Your task to perform on an android device: set default search engine in the chrome app Image 0: 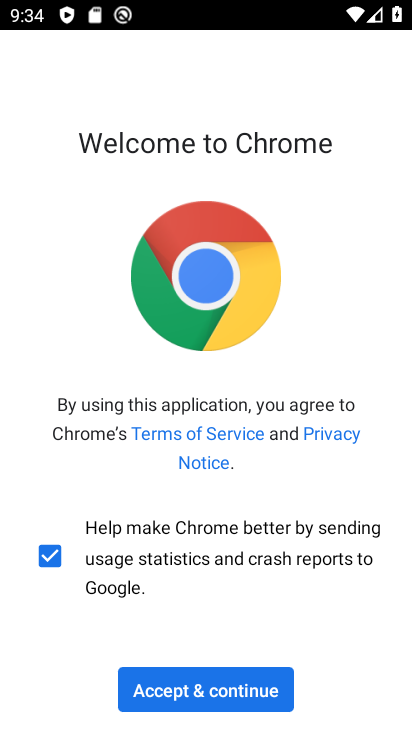
Step 0: press home button
Your task to perform on an android device: set default search engine in the chrome app Image 1: 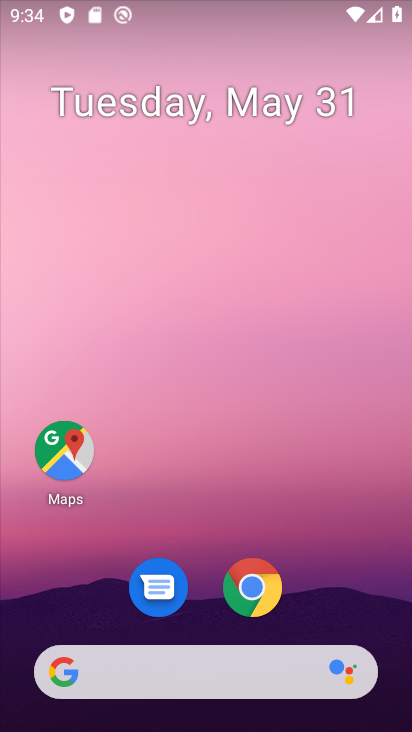
Step 1: drag from (378, 602) to (383, 222)
Your task to perform on an android device: set default search engine in the chrome app Image 2: 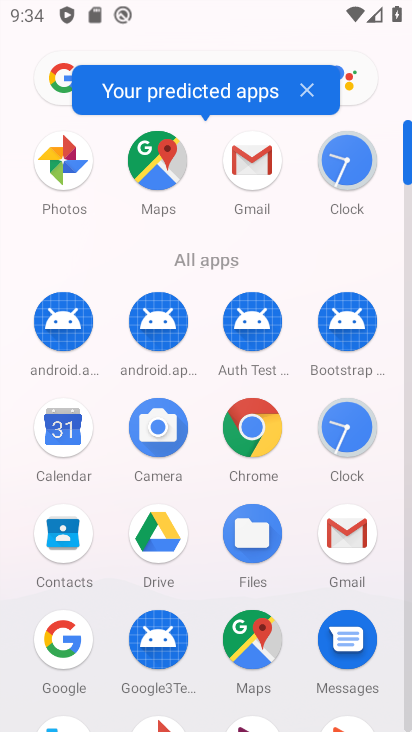
Step 2: click (254, 425)
Your task to perform on an android device: set default search engine in the chrome app Image 3: 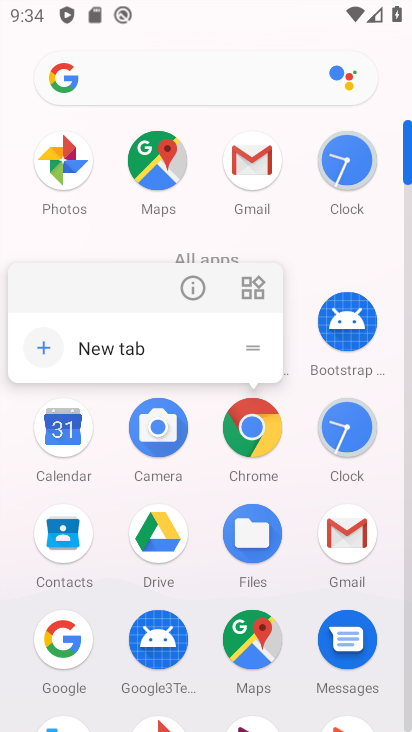
Step 3: click (254, 425)
Your task to perform on an android device: set default search engine in the chrome app Image 4: 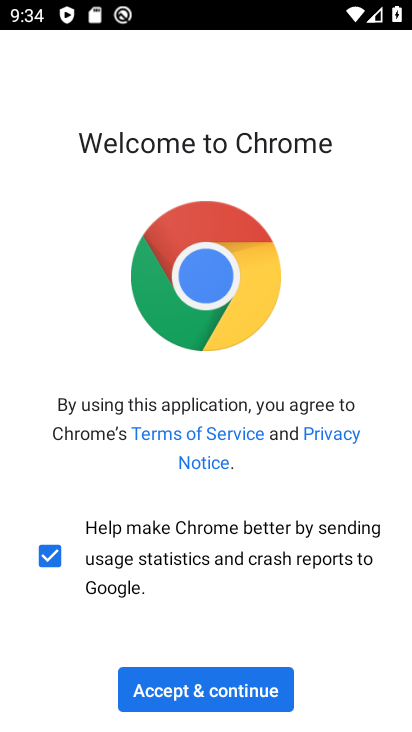
Step 4: click (209, 693)
Your task to perform on an android device: set default search engine in the chrome app Image 5: 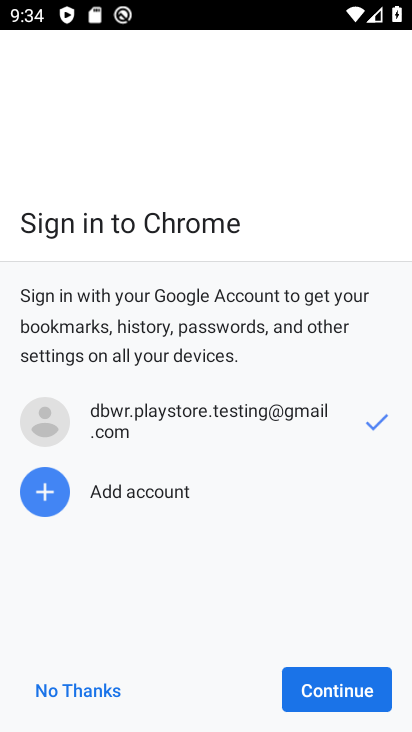
Step 5: click (295, 694)
Your task to perform on an android device: set default search engine in the chrome app Image 6: 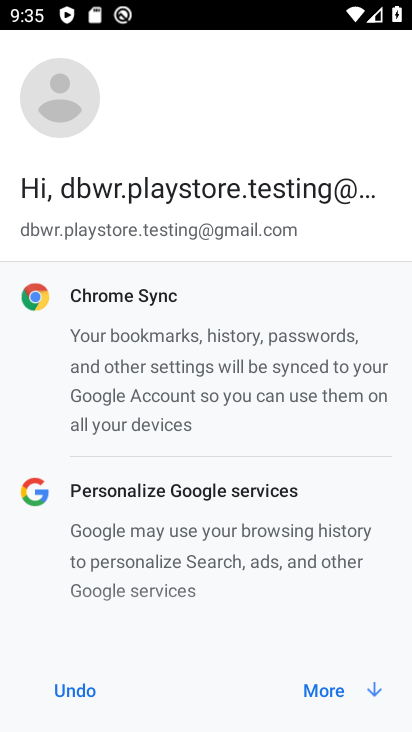
Step 6: click (312, 694)
Your task to perform on an android device: set default search engine in the chrome app Image 7: 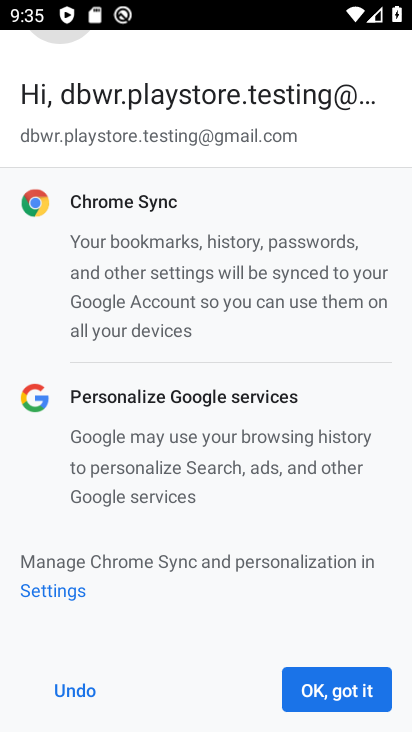
Step 7: click (333, 702)
Your task to perform on an android device: set default search engine in the chrome app Image 8: 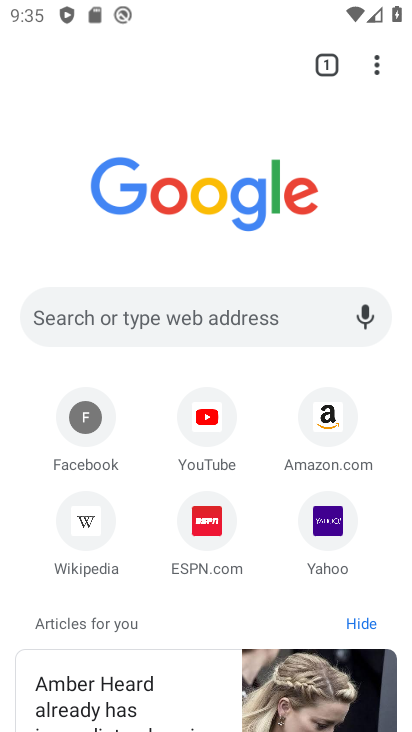
Step 8: click (379, 73)
Your task to perform on an android device: set default search engine in the chrome app Image 9: 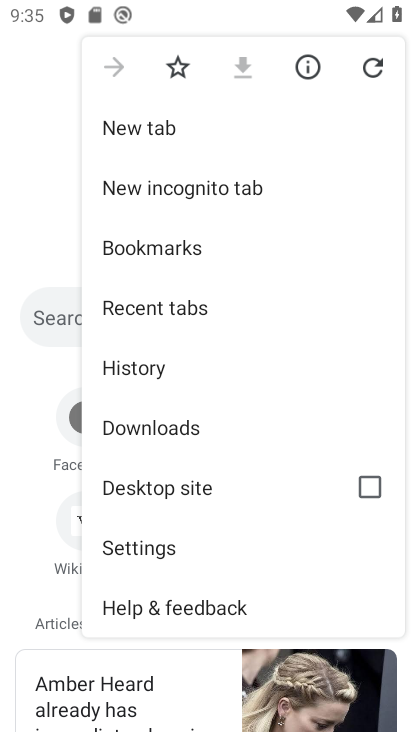
Step 9: click (219, 541)
Your task to perform on an android device: set default search engine in the chrome app Image 10: 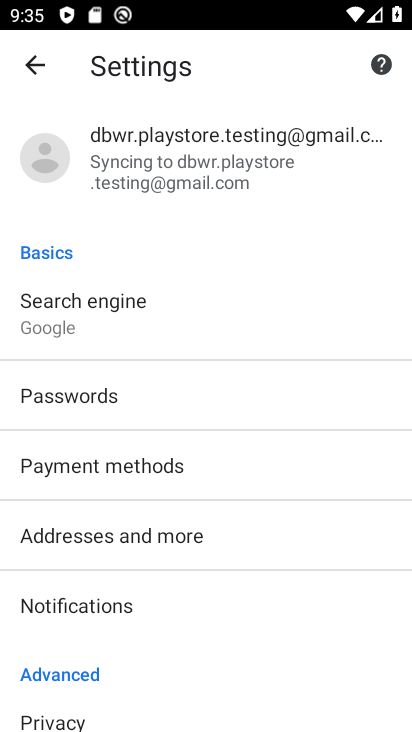
Step 10: drag from (341, 518) to (362, 407)
Your task to perform on an android device: set default search engine in the chrome app Image 11: 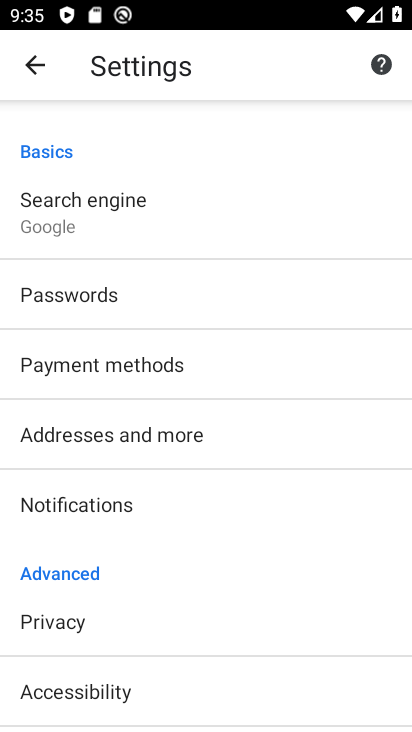
Step 11: drag from (364, 559) to (359, 423)
Your task to perform on an android device: set default search engine in the chrome app Image 12: 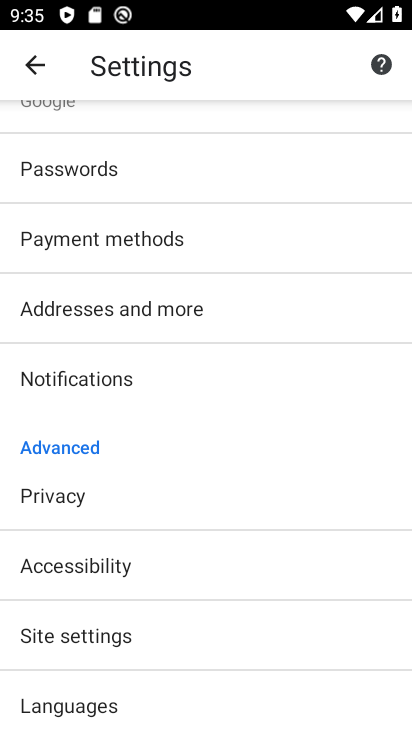
Step 12: drag from (319, 577) to (324, 416)
Your task to perform on an android device: set default search engine in the chrome app Image 13: 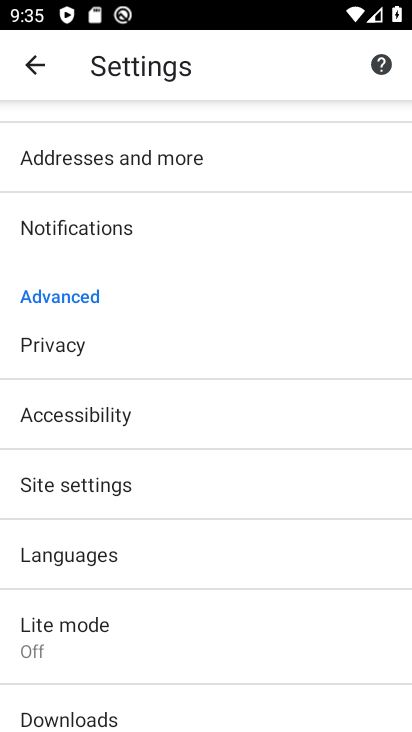
Step 13: drag from (315, 612) to (334, 427)
Your task to perform on an android device: set default search engine in the chrome app Image 14: 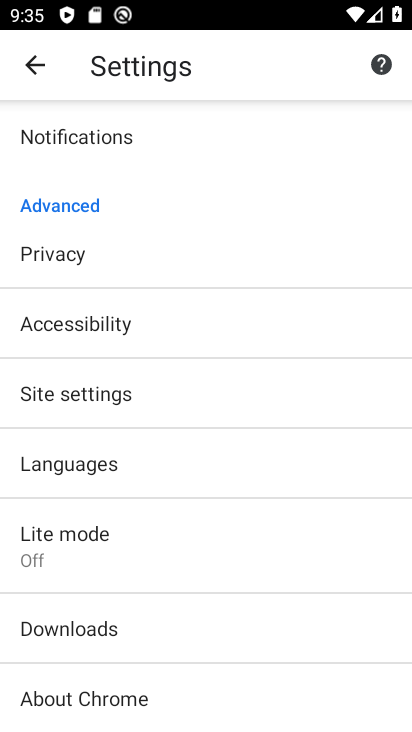
Step 14: drag from (329, 307) to (327, 417)
Your task to perform on an android device: set default search engine in the chrome app Image 15: 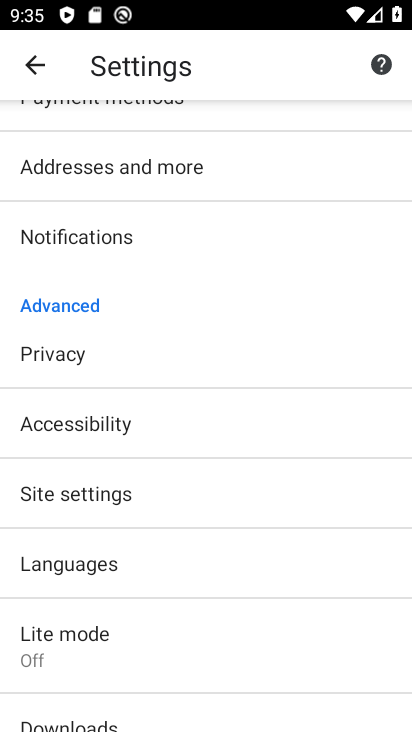
Step 15: drag from (304, 262) to (300, 350)
Your task to perform on an android device: set default search engine in the chrome app Image 16: 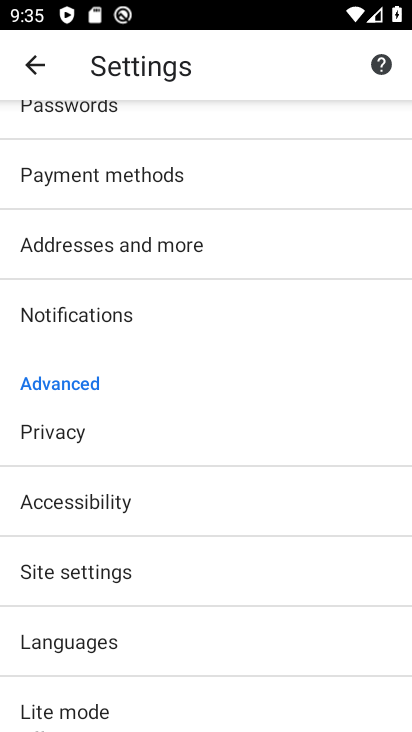
Step 16: drag from (308, 240) to (310, 359)
Your task to perform on an android device: set default search engine in the chrome app Image 17: 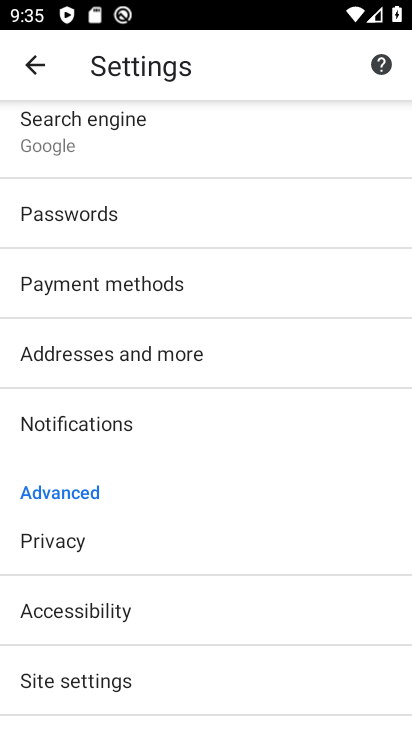
Step 17: drag from (296, 213) to (298, 359)
Your task to perform on an android device: set default search engine in the chrome app Image 18: 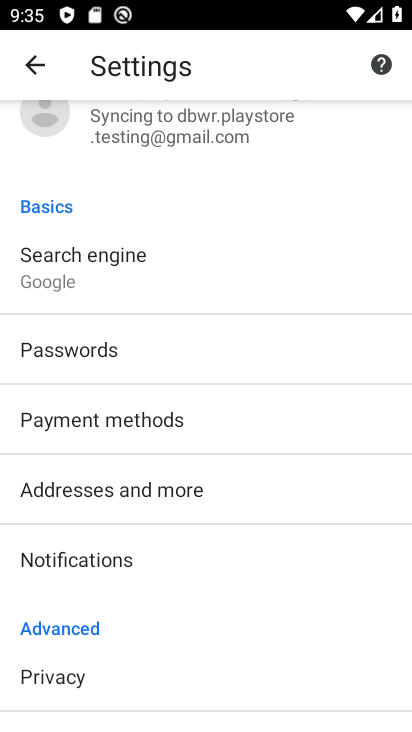
Step 18: drag from (282, 194) to (282, 404)
Your task to perform on an android device: set default search engine in the chrome app Image 19: 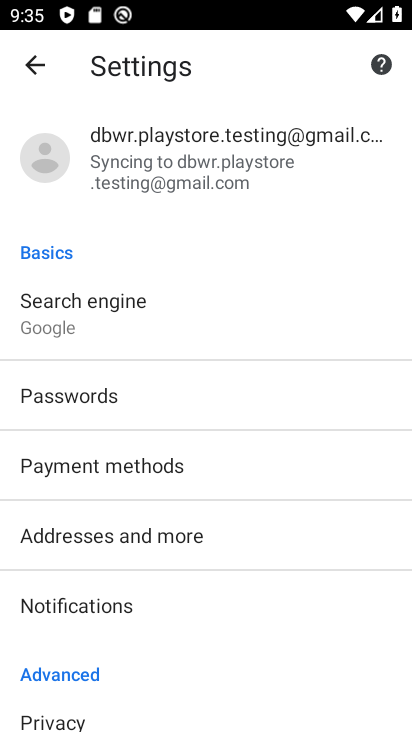
Step 19: click (142, 331)
Your task to perform on an android device: set default search engine in the chrome app Image 20: 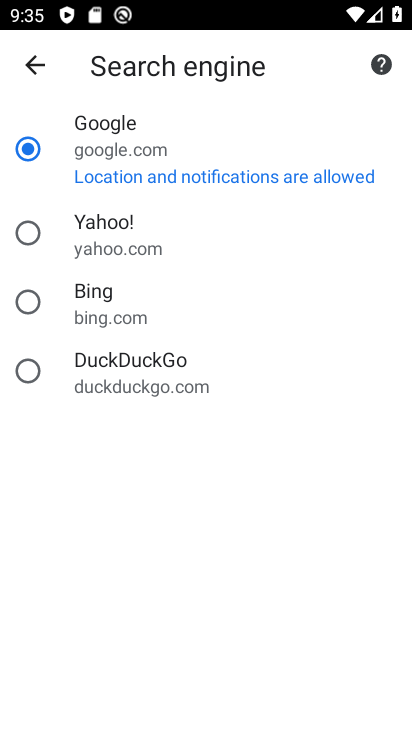
Step 20: click (97, 309)
Your task to perform on an android device: set default search engine in the chrome app Image 21: 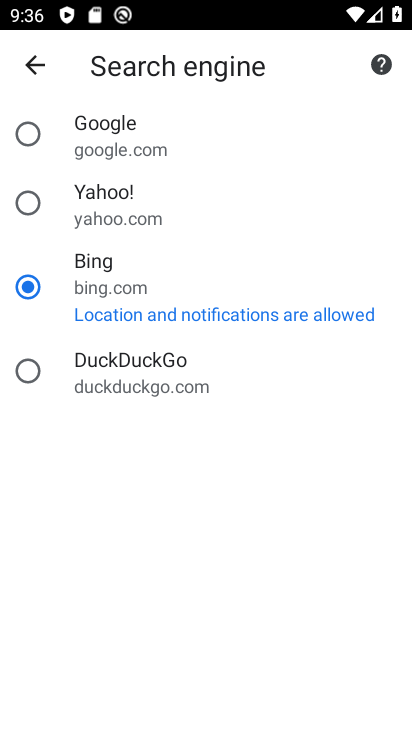
Step 21: task complete